Your task to perform on an android device: Open Google Chrome and click the shortcut for Amazon.com Image 0: 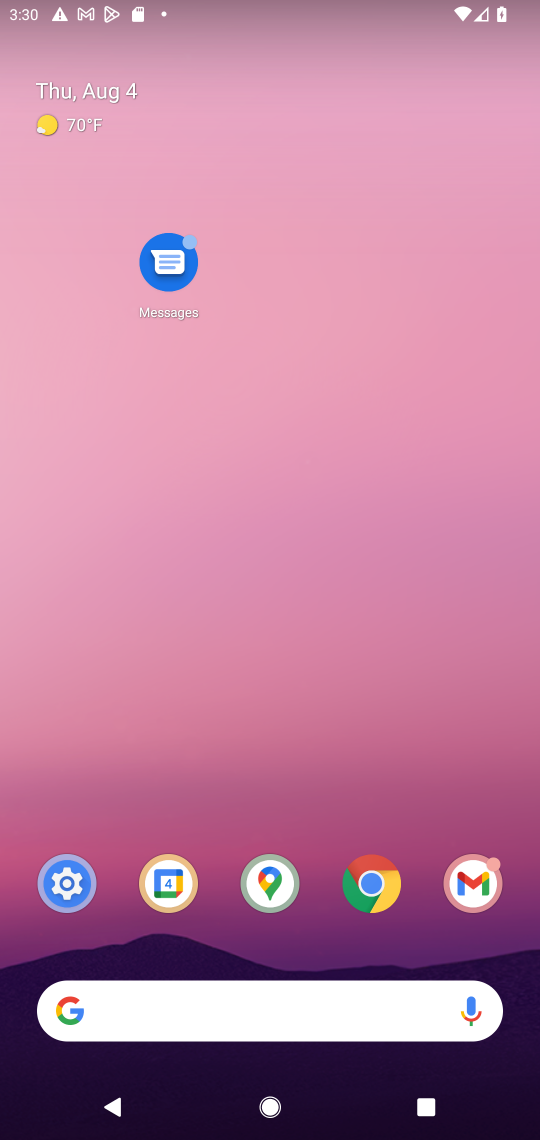
Step 0: click (373, 891)
Your task to perform on an android device: Open Google Chrome and click the shortcut for Amazon.com Image 1: 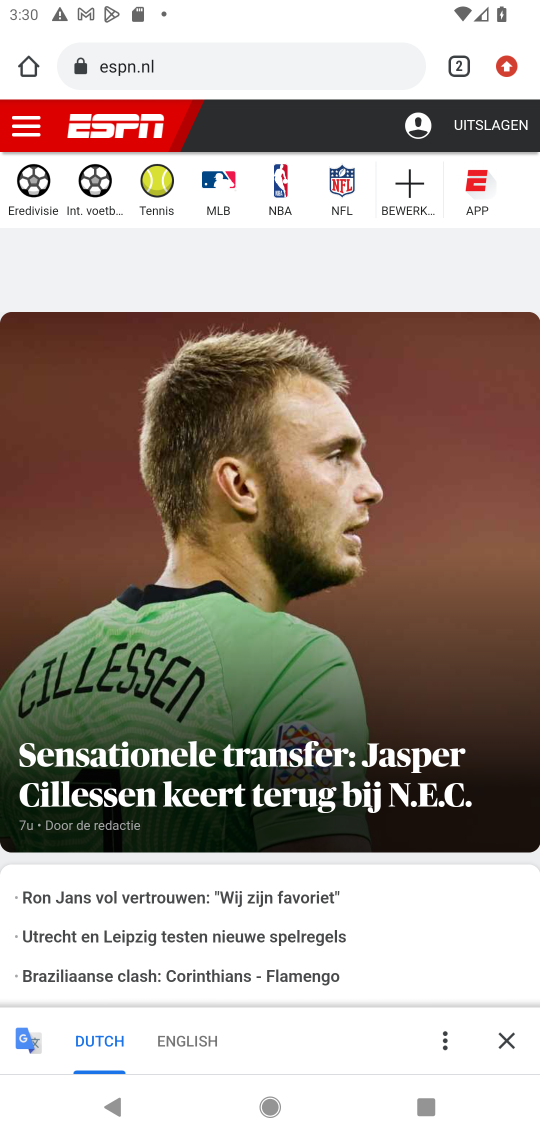
Step 1: click (503, 67)
Your task to perform on an android device: Open Google Chrome and click the shortcut for Amazon.com Image 2: 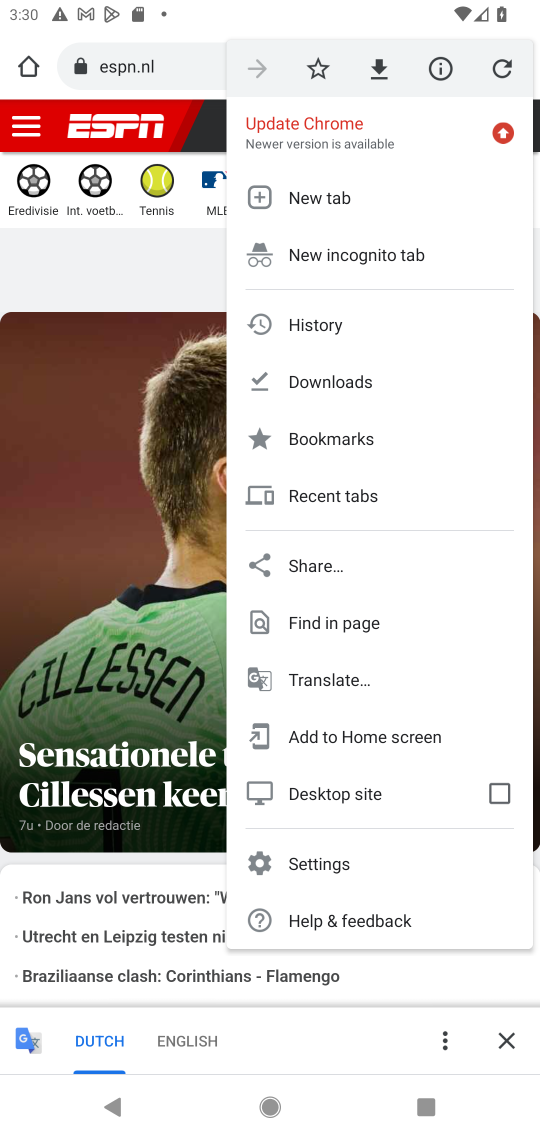
Step 2: click (317, 198)
Your task to perform on an android device: Open Google Chrome and click the shortcut for Amazon.com Image 3: 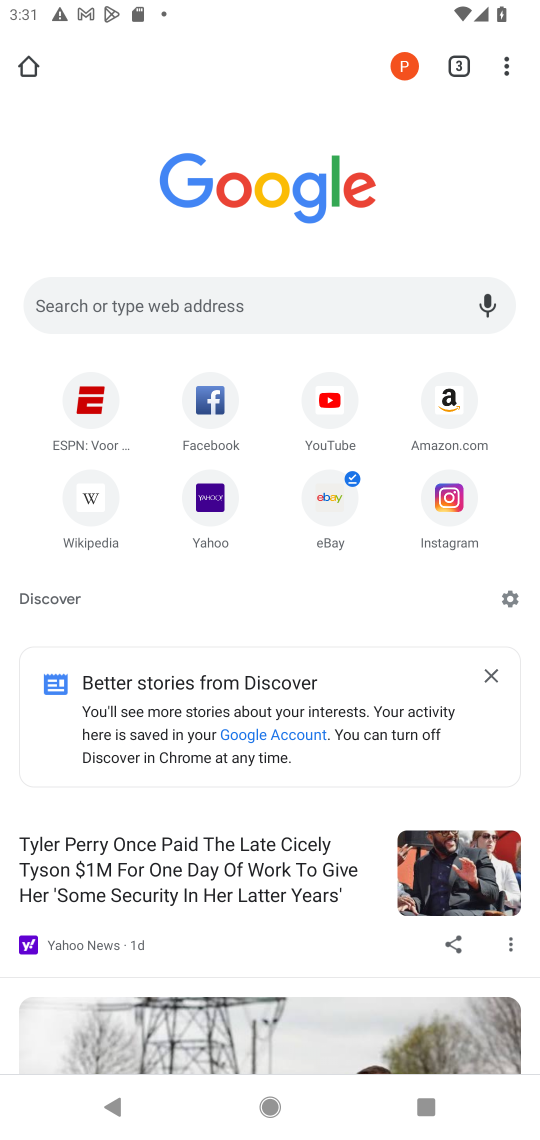
Step 3: click (445, 399)
Your task to perform on an android device: Open Google Chrome and click the shortcut for Amazon.com Image 4: 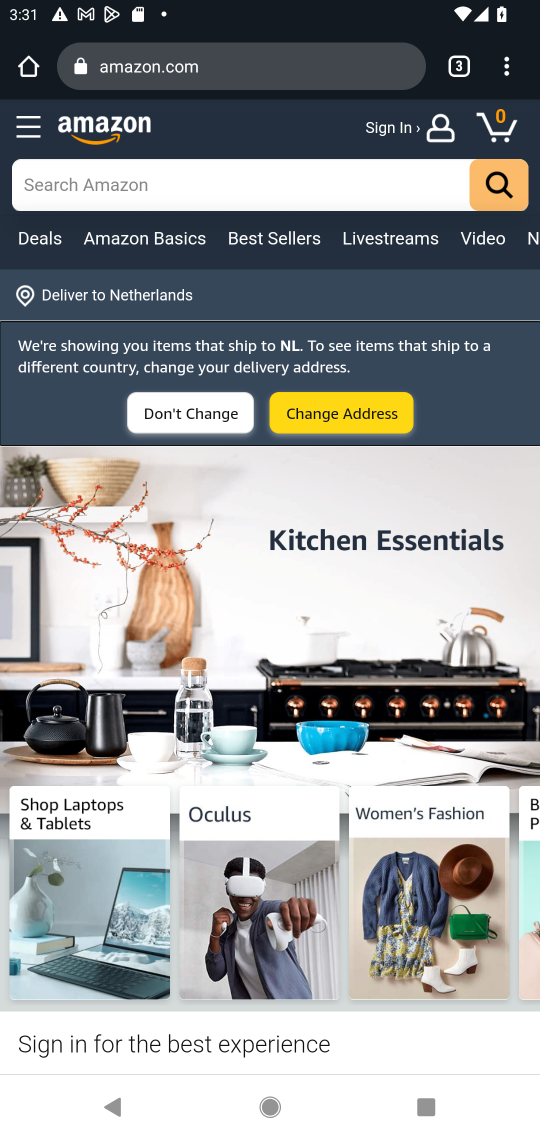
Step 4: task complete